Your task to perform on an android device: clear all cookies in the chrome app Image 0: 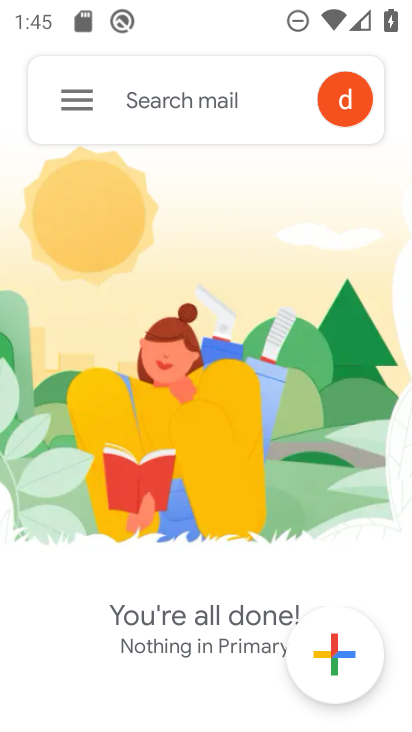
Step 0: press home button
Your task to perform on an android device: clear all cookies in the chrome app Image 1: 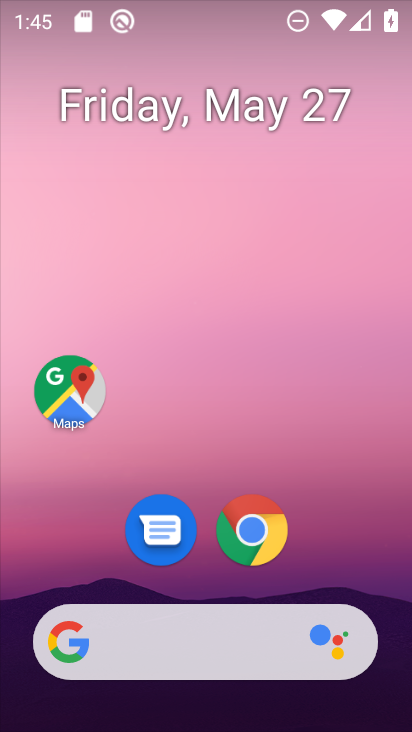
Step 1: click (259, 522)
Your task to perform on an android device: clear all cookies in the chrome app Image 2: 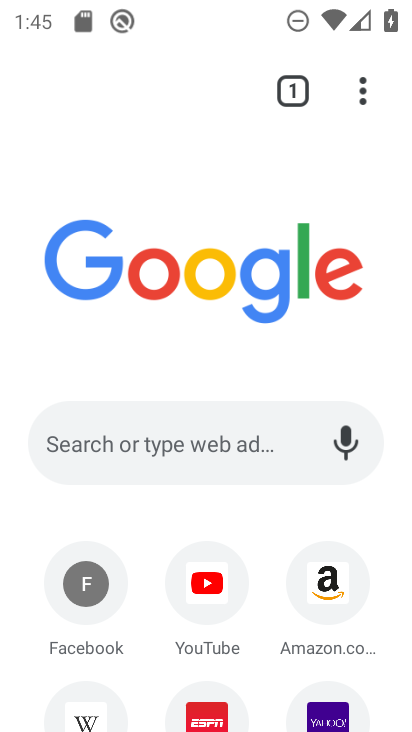
Step 2: click (360, 94)
Your task to perform on an android device: clear all cookies in the chrome app Image 3: 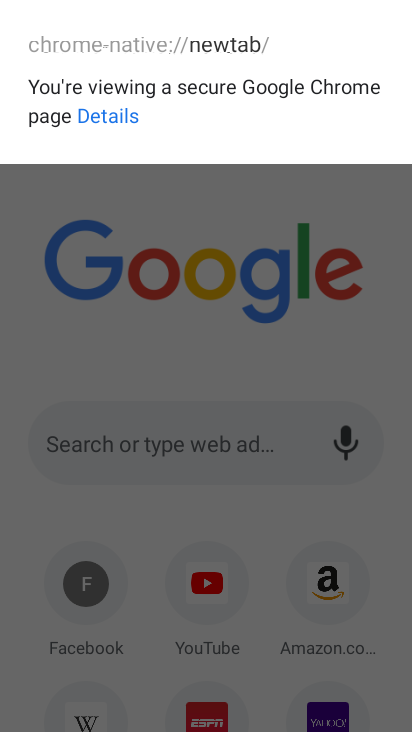
Step 3: click (373, 323)
Your task to perform on an android device: clear all cookies in the chrome app Image 4: 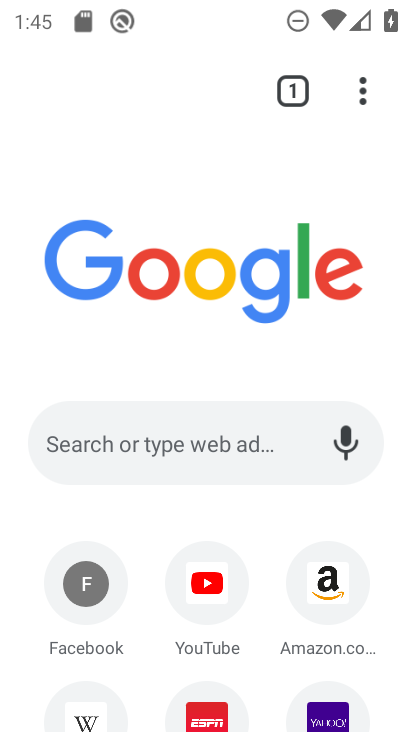
Step 4: click (360, 103)
Your task to perform on an android device: clear all cookies in the chrome app Image 5: 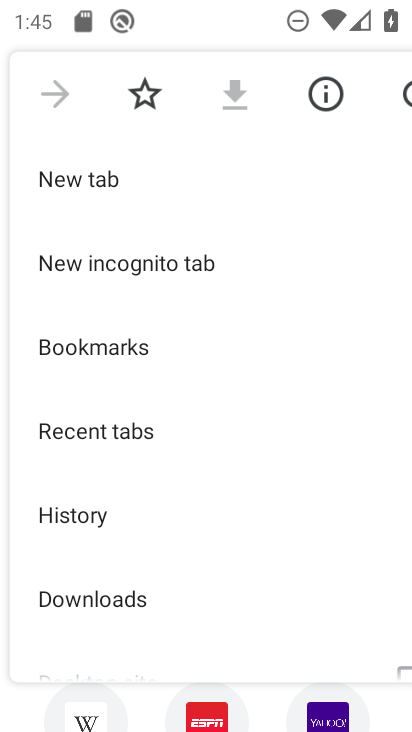
Step 5: drag from (159, 611) to (189, 182)
Your task to perform on an android device: clear all cookies in the chrome app Image 6: 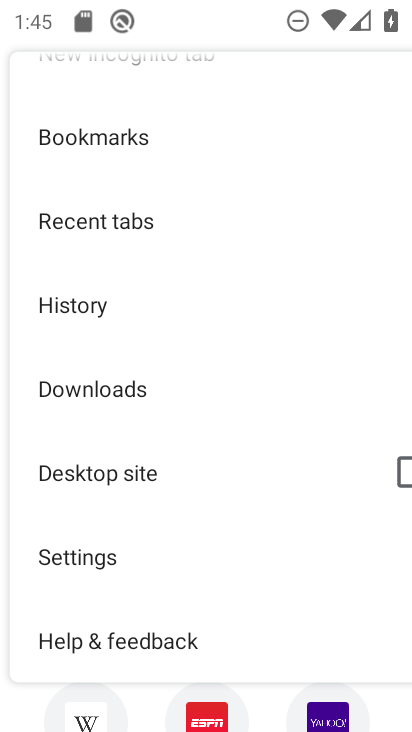
Step 6: click (96, 557)
Your task to perform on an android device: clear all cookies in the chrome app Image 7: 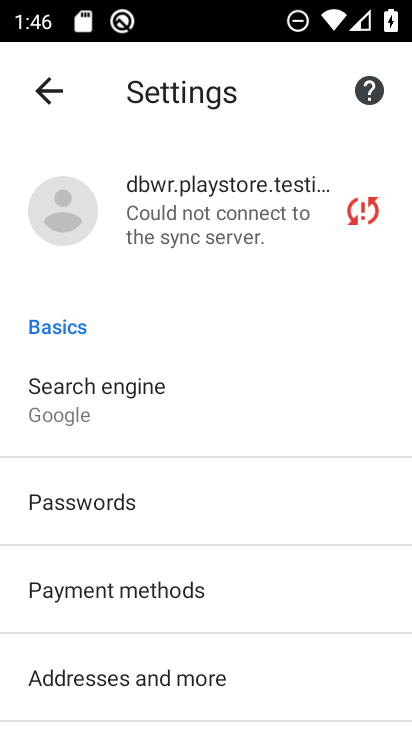
Step 7: drag from (306, 632) to (298, 272)
Your task to perform on an android device: clear all cookies in the chrome app Image 8: 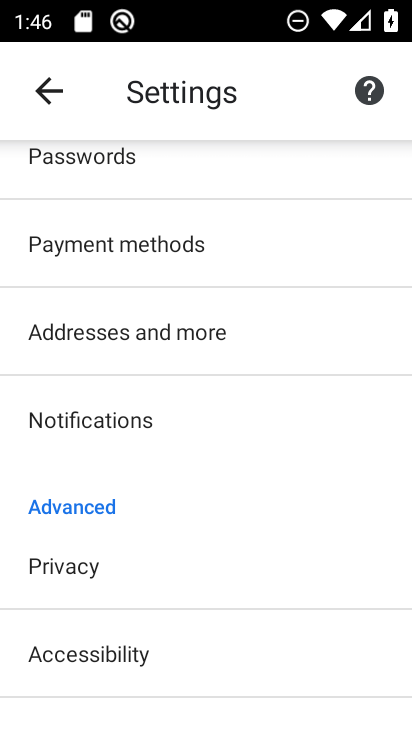
Step 8: drag from (216, 546) to (228, 248)
Your task to perform on an android device: clear all cookies in the chrome app Image 9: 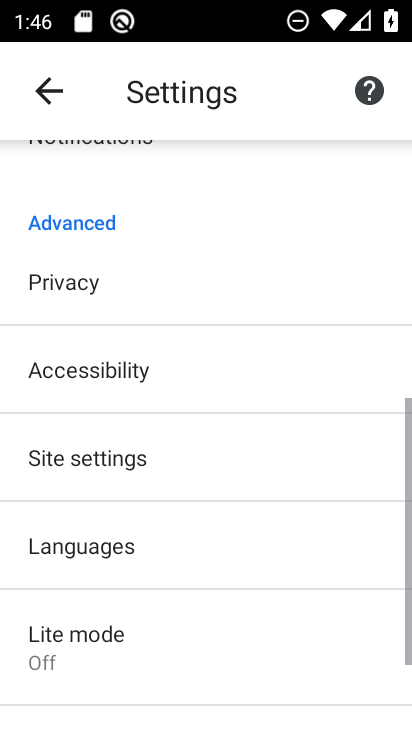
Step 9: click (96, 290)
Your task to perform on an android device: clear all cookies in the chrome app Image 10: 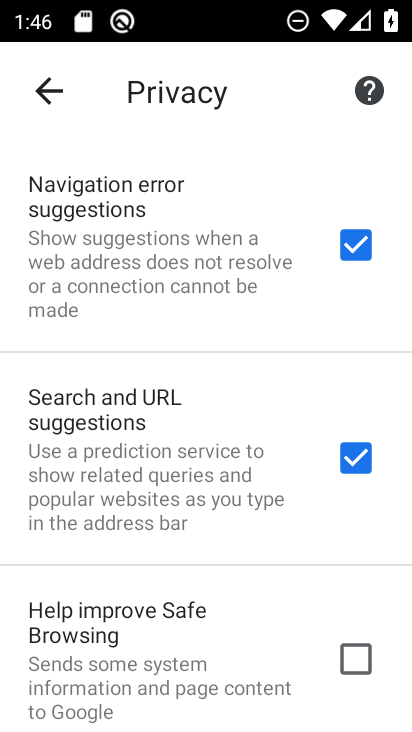
Step 10: drag from (292, 630) to (320, 138)
Your task to perform on an android device: clear all cookies in the chrome app Image 11: 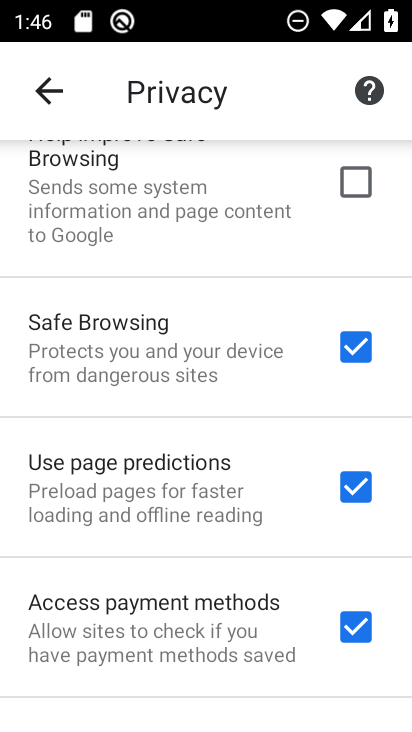
Step 11: drag from (252, 703) to (338, 132)
Your task to perform on an android device: clear all cookies in the chrome app Image 12: 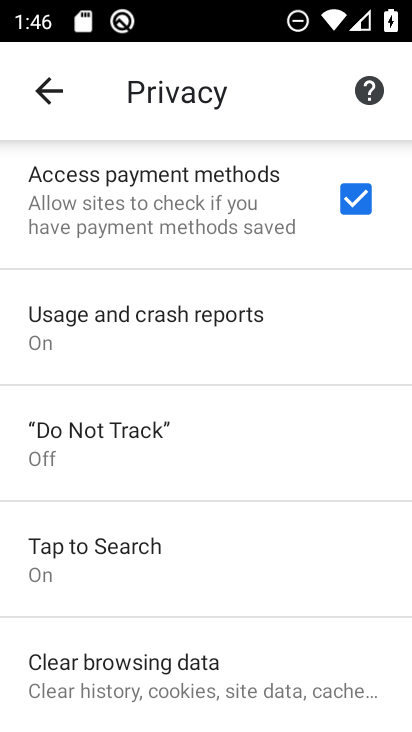
Step 12: click (177, 679)
Your task to perform on an android device: clear all cookies in the chrome app Image 13: 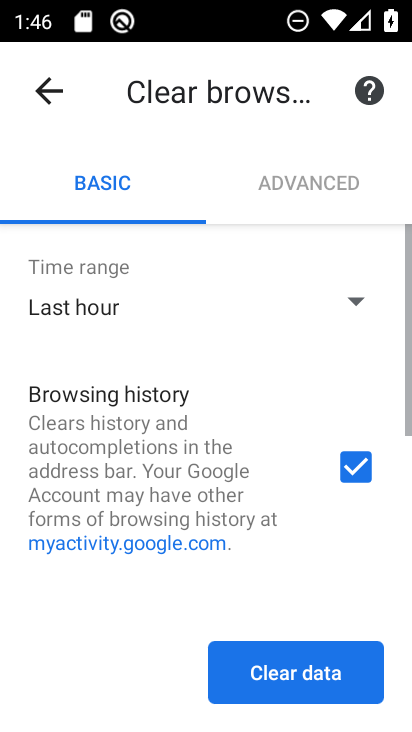
Step 13: click (353, 466)
Your task to perform on an android device: clear all cookies in the chrome app Image 14: 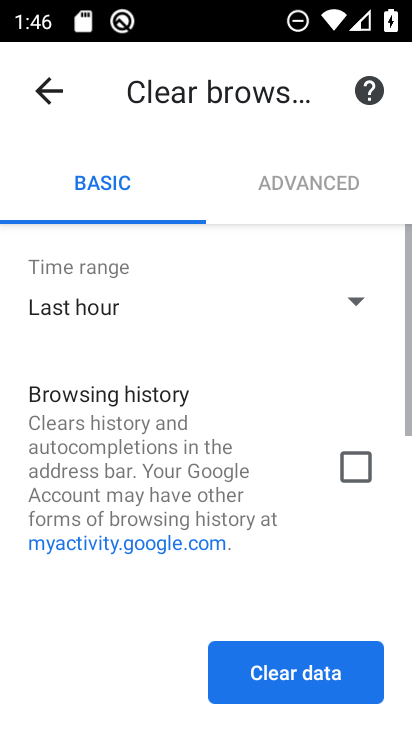
Step 14: click (357, 302)
Your task to perform on an android device: clear all cookies in the chrome app Image 15: 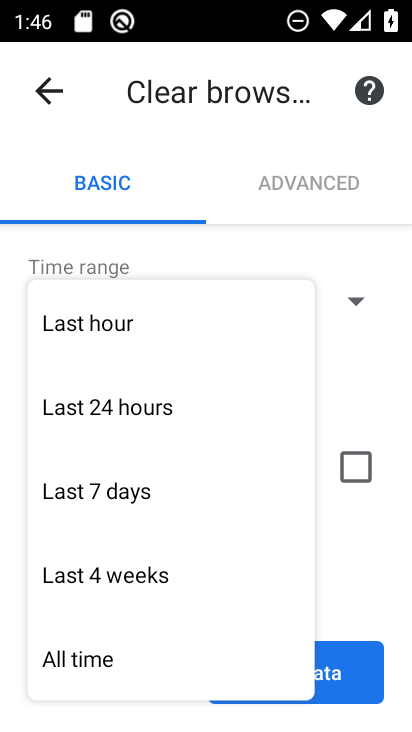
Step 15: click (101, 663)
Your task to perform on an android device: clear all cookies in the chrome app Image 16: 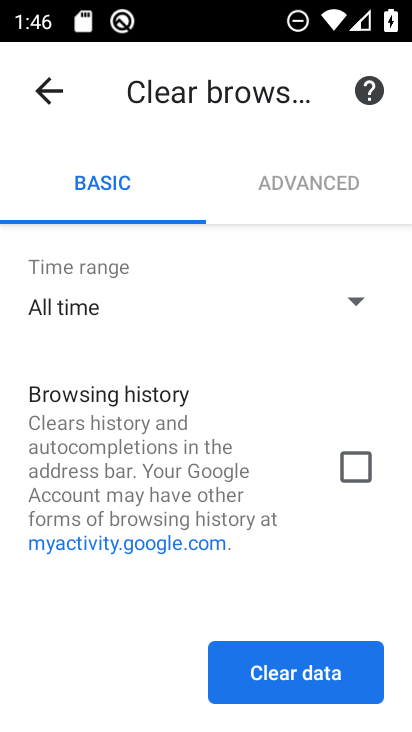
Step 16: drag from (233, 418) to (254, 149)
Your task to perform on an android device: clear all cookies in the chrome app Image 17: 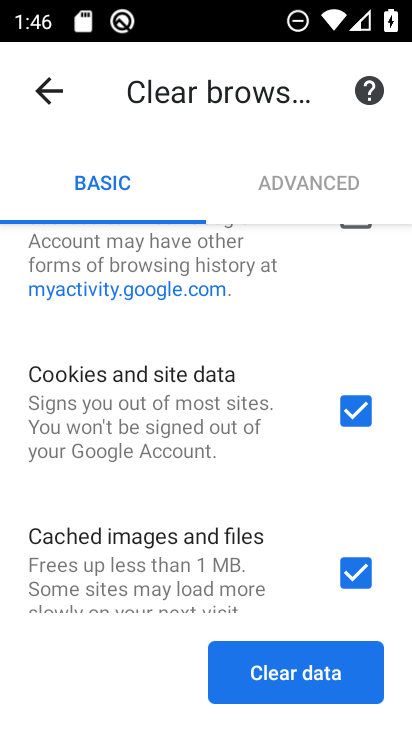
Step 17: click (350, 580)
Your task to perform on an android device: clear all cookies in the chrome app Image 18: 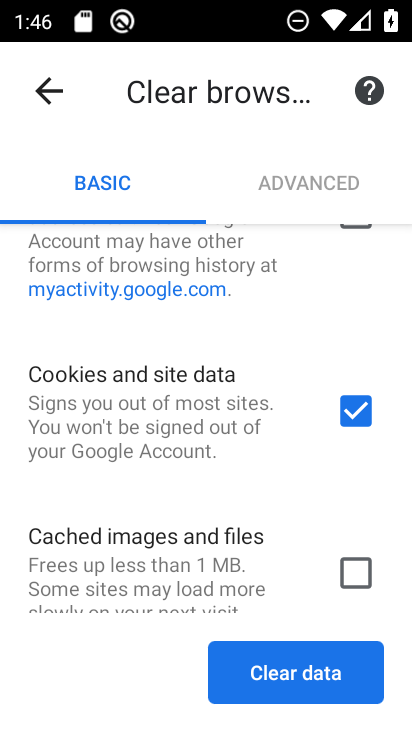
Step 18: click (311, 671)
Your task to perform on an android device: clear all cookies in the chrome app Image 19: 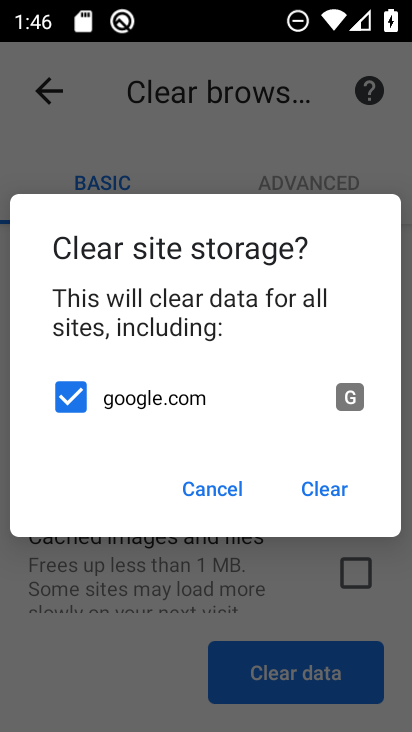
Step 19: click (317, 493)
Your task to perform on an android device: clear all cookies in the chrome app Image 20: 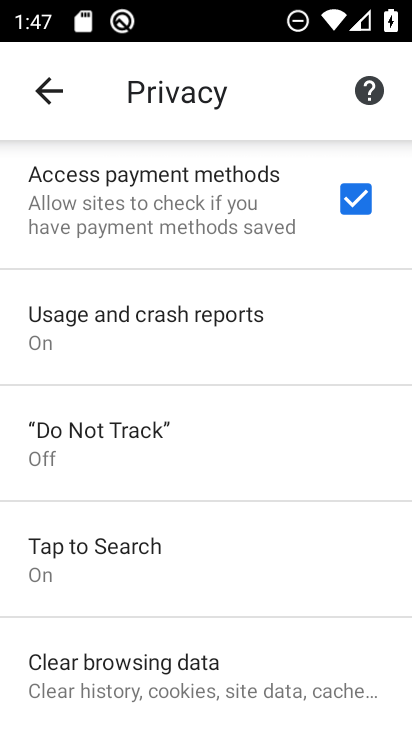
Step 20: task complete